Your task to perform on an android device: add a contact in the contacts app Image 0: 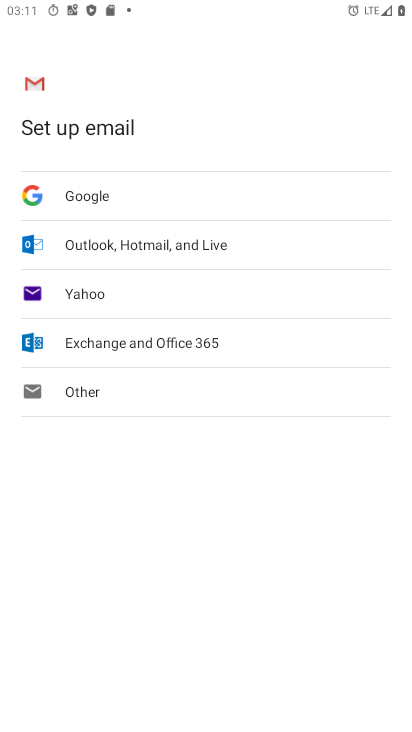
Step 0: press home button
Your task to perform on an android device: add a contact in the contacts app Image 1: 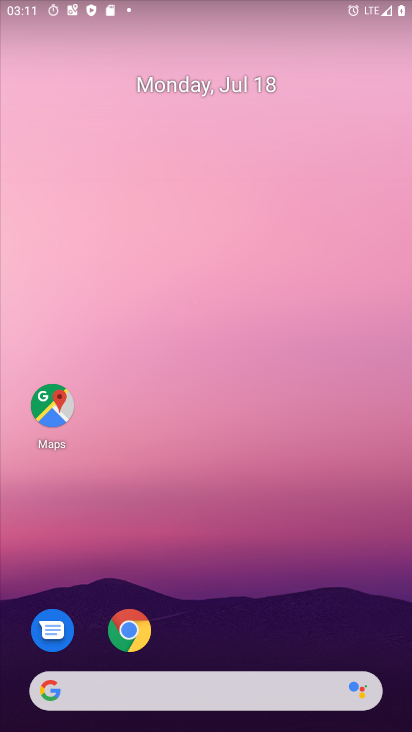
Step 1: drag from (181, 654) to (102, 216)
Your task to perform on an android device: add a contact in the contacts app Image 2: 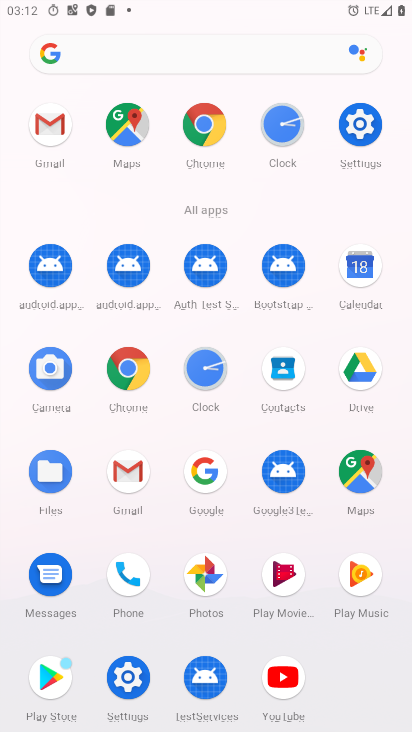
Step 2: click (132, 594)
Your task to perform on an android device: add a contact in the contacts app Image 3: 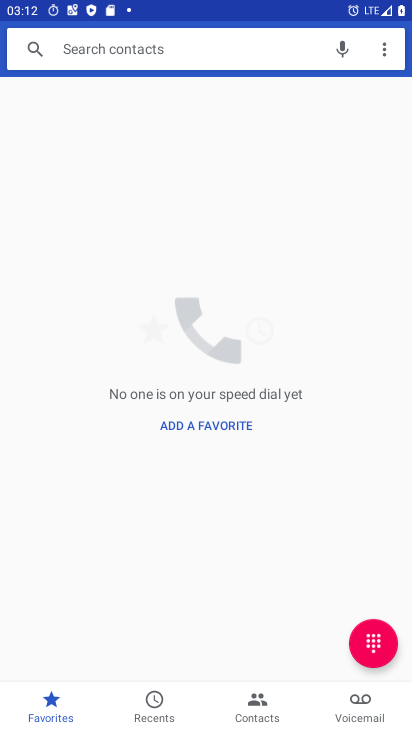
Step 3: click (384, 655)
Your task to perform on an android device: add a contact in the contacts app Image 4: 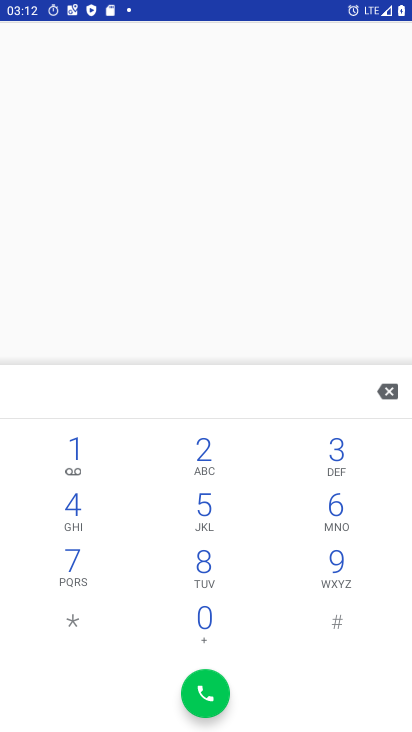
Step 4: click (266, 383)
Your task to perform on an android device: add a contact in the contacts app Image 5: 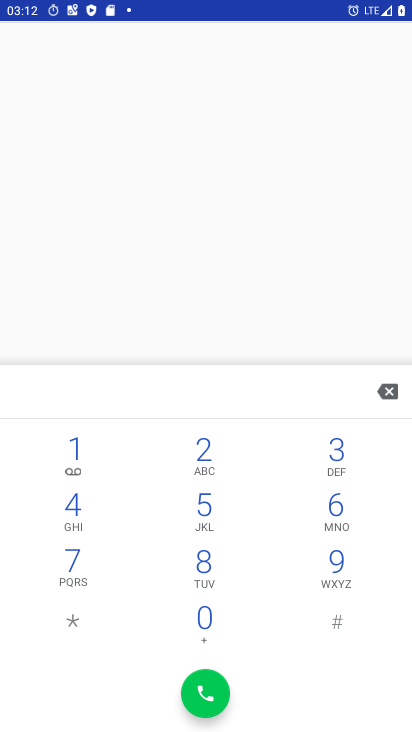
Step 5: click (207, 218)
Your task to perform on an android device: add a contact in the contacts app Image 6: 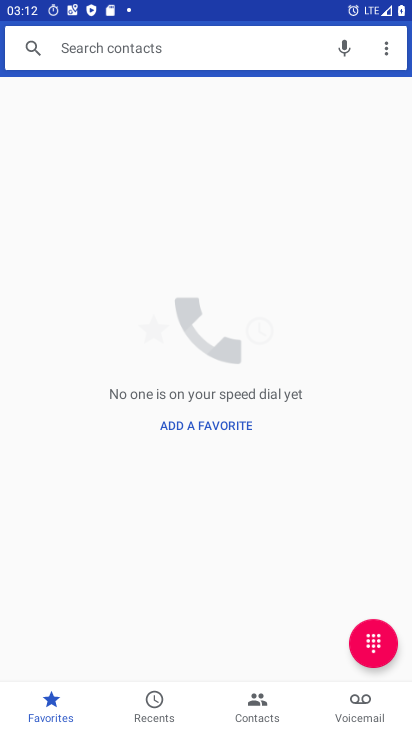
Step 6: click (383, 45)
Your task to perform on an android device: add a contact in the contacts app Image 7: 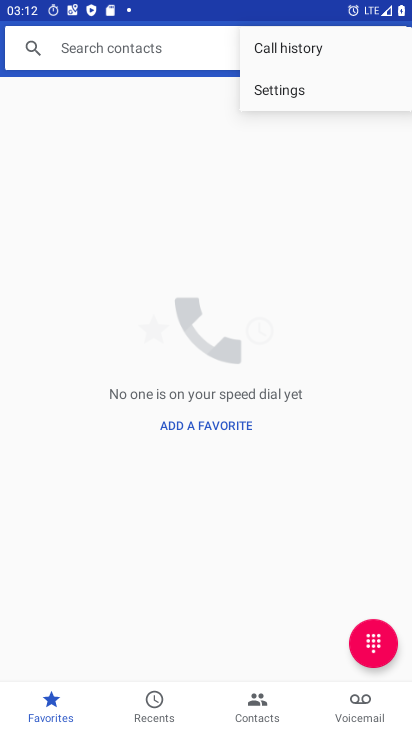
Step 7: click (46, 375)
Your task to perform on an android device: add a contact in the contacts app Image 8: 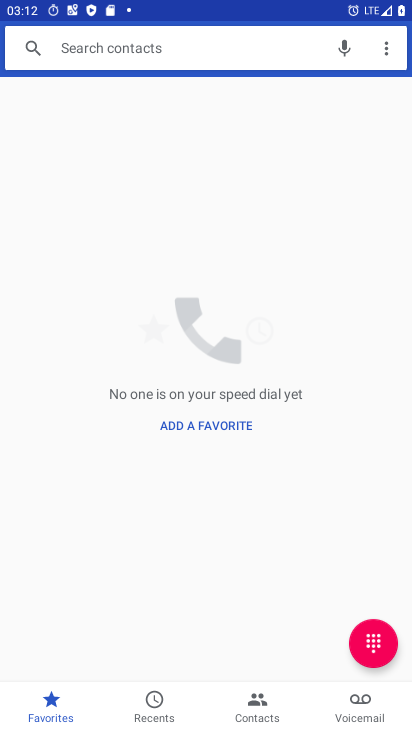
Step 8: click (250, 691)
Your task to perform on an android device: add a contact in the contacts app Image 9: 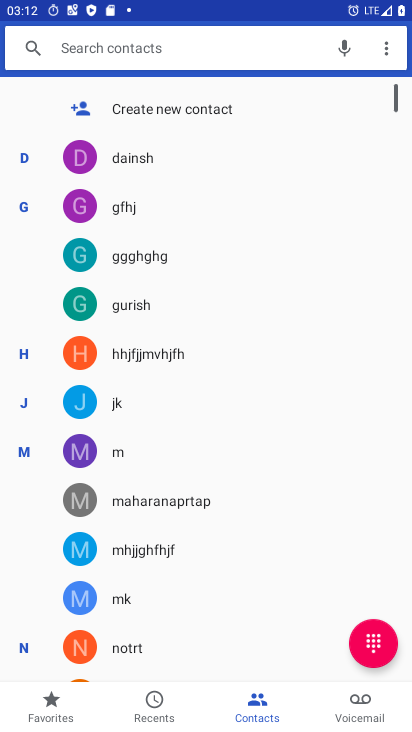
Step 9: click (143, 98)
Your task to perform on an android device: add a contact in the contacts app Image 10: 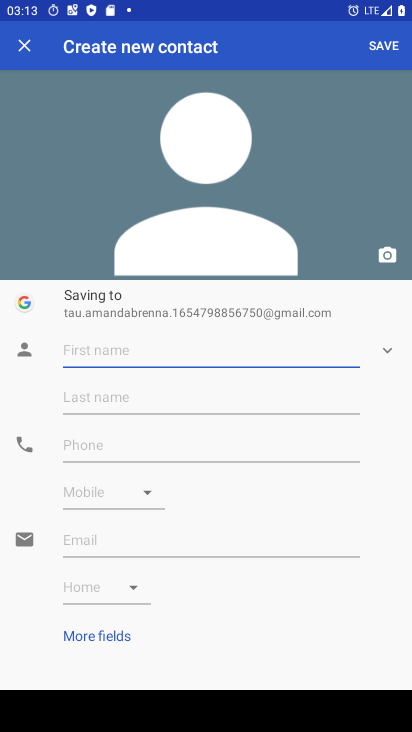
Step 10: type "oiujhgfc"
Your task to perform on an android device: add a contact in the contacts app Image 11: 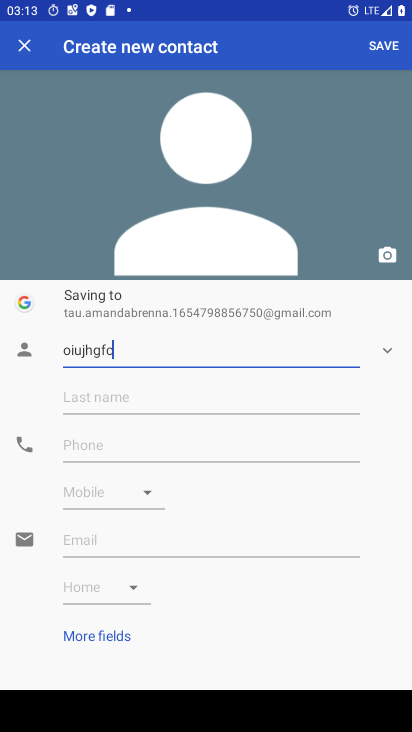
Step 11: click (282, 452)
Your task to perform on an android device: add a contact in the contacts app Image 12: 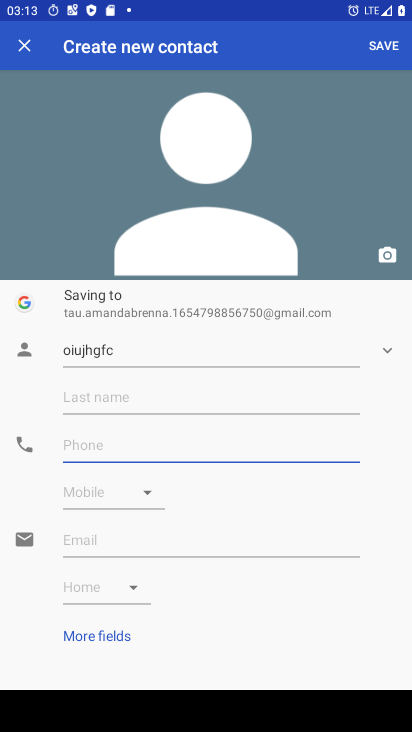
Step 12: type "234567890"
Your task to perform on an android device: add a contact in the contacts app Image 13: 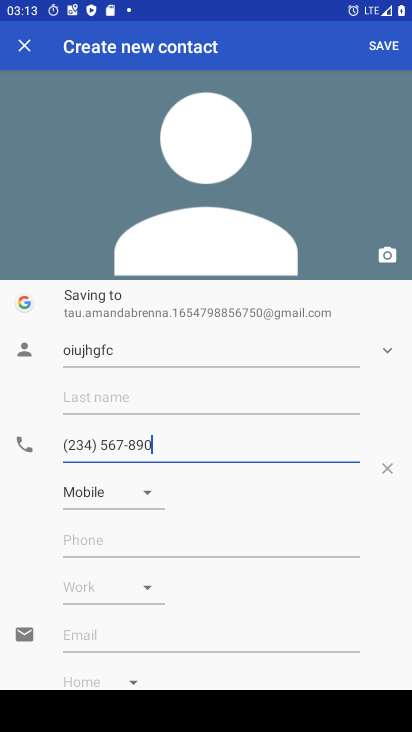
Step 13: type ""
Your task to perform on an android device: add a contact in the contacts app Image 14: 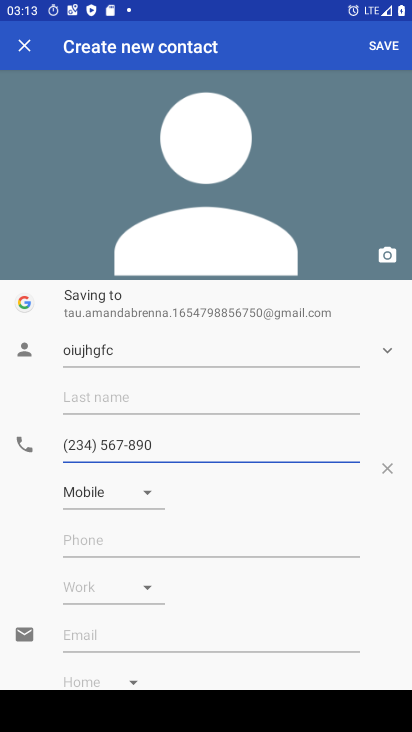
Step 14: click (376, 54)
Your task to perform on an android device: add a contact in the contacts app Image 15: 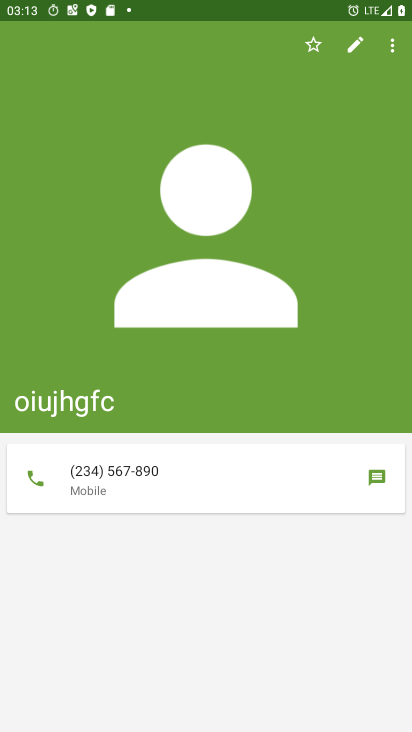
Step 15: task complete